Your task to perform on an android device: Show me recent news Image 0: 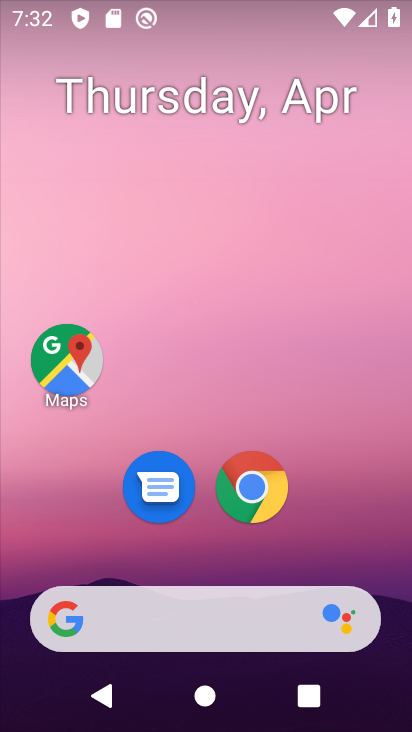
Step 0: click (264, 483)
Your task to perform on an android device: Show me recent news Image 1: 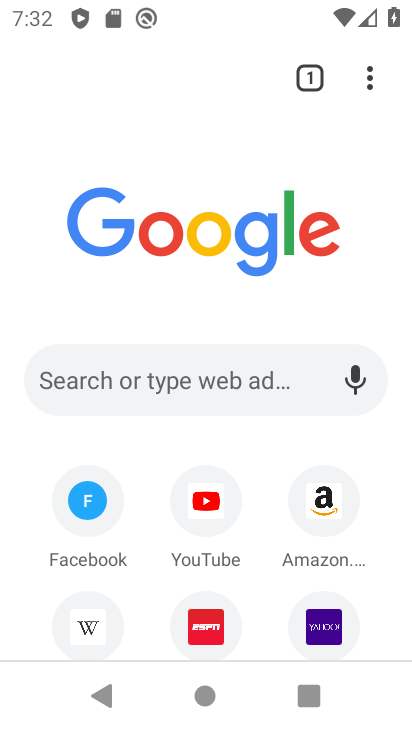
Step 1: drag from (264, 483) to (249, 80)
Your task to perform on an android device: Show me recent news Image 2: 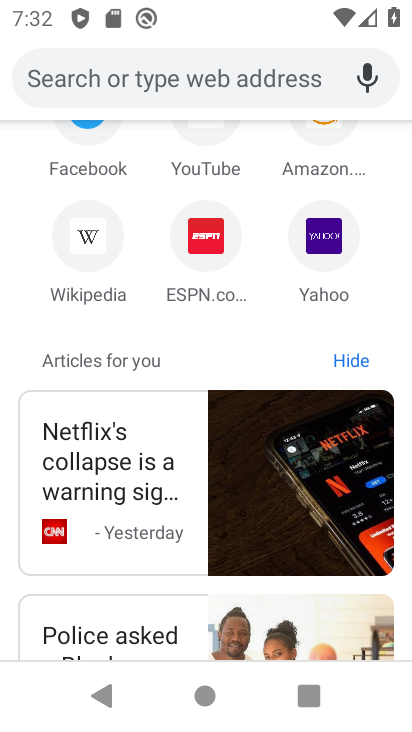
Step 2: click (158, 446)
Your task to perform on an android device: Show me recent news Image 3: 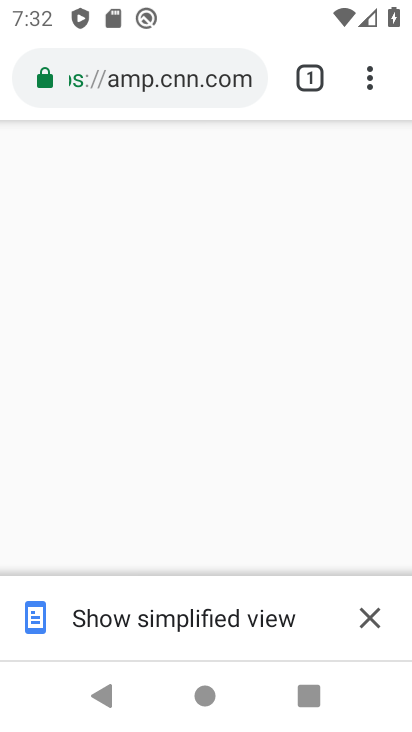
Step 3: click (374, 610)
Your task to perform on an android device: Show me recent news Image 4: 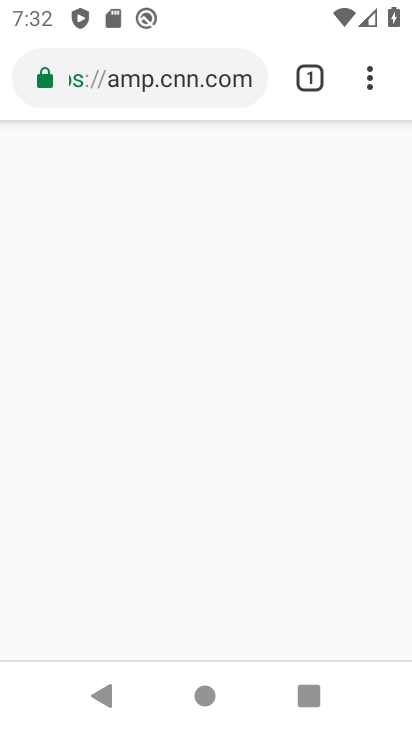
Step 4: press back button
Your task to perform on an android device: Show me recent news Image 5: 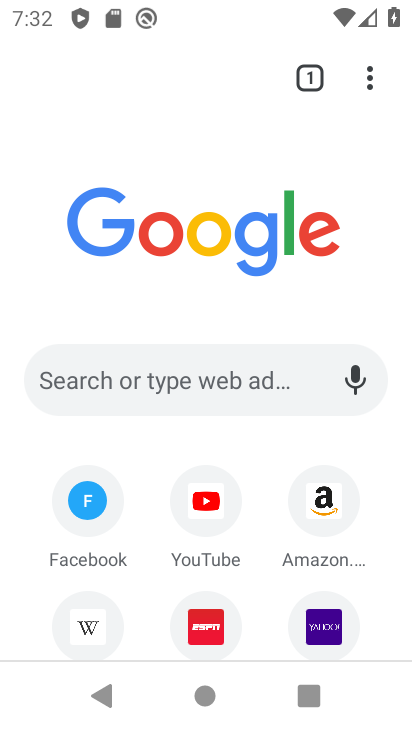
Step 5: drag from (166, 584) to (142, 184)
Your task to perform on an android device: Show me recent news Image 6: 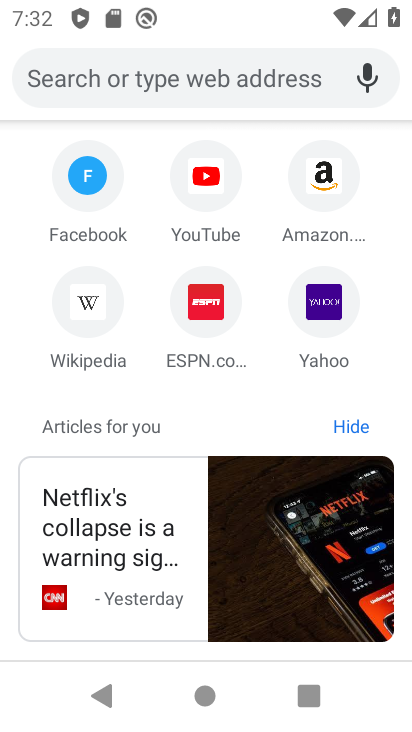
Step 6: click (149, 527)
Your task to perform on an android device: Show me recent news Image 7: 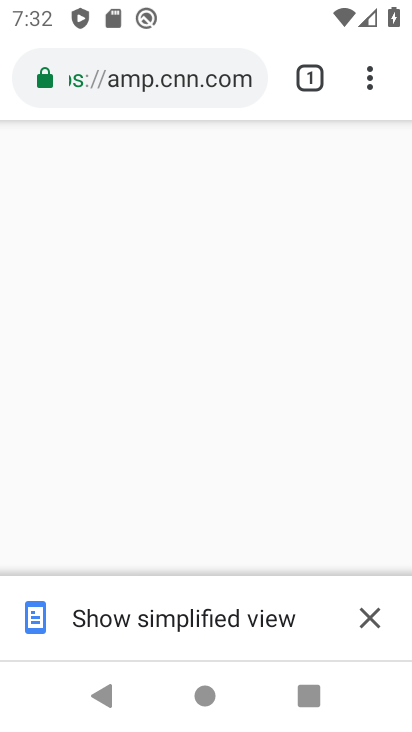
Step 7: press back button
Your task to perform on an android device: Show me recent news Image 8: 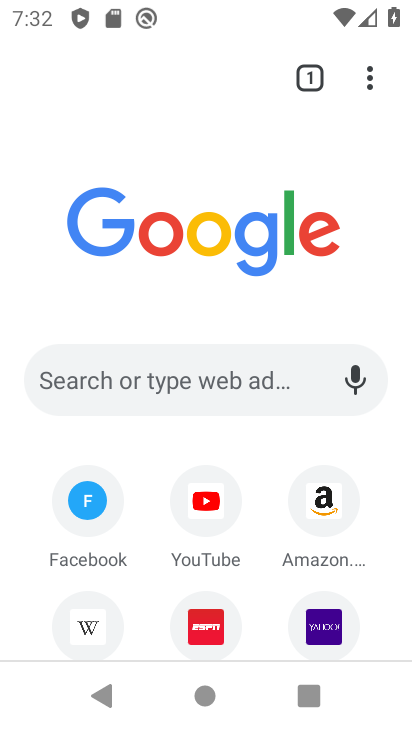
Step 8: drag from (237, 526) to (144, 19)
Your task to perform on an android device: Show me recent news Image 9: 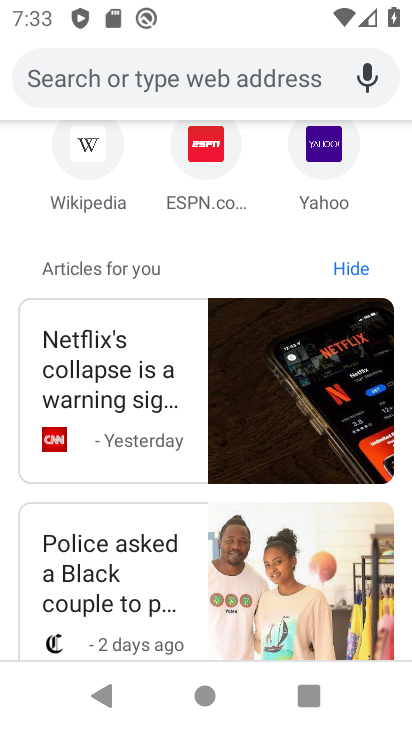
Step 9: click (134, 541)
Your task to perform on an android device: Show me recent news Image 10: 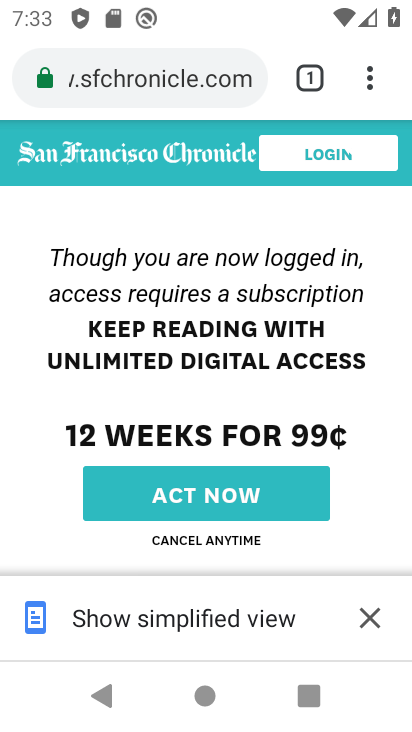
Step 10: task complete